Your task to perform on an android device: Open Reddit.com Image 0: 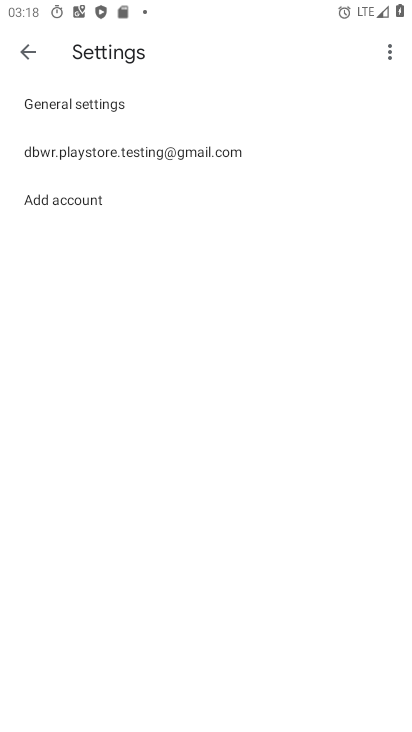
Step 0: press home button
Your task to perform on an android device: Open Reddit.com Image 1: 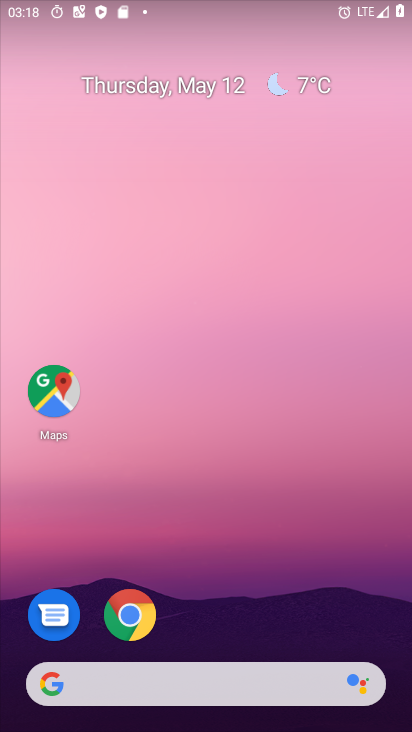
Step 1: click (126, 615)
Your task to perform on an android device: Open Reddit.com Image 2: 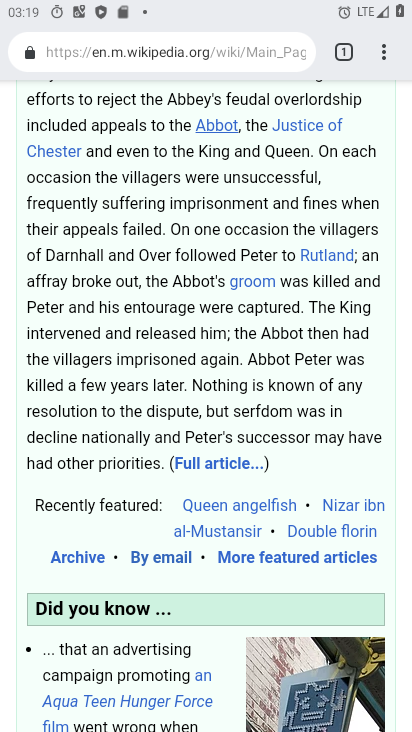
Step 2: click (189, 49)
Your task to perform on an android device: Open Reddit.com Image 3: 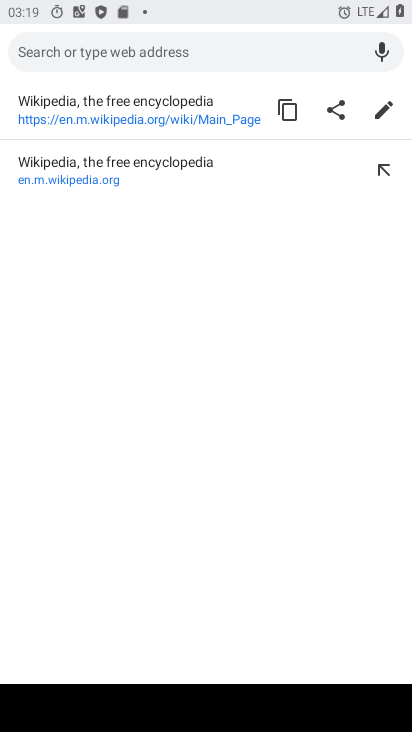
Step 3: type "reddit.com"
Your task to perform on an android device: Open Reddit.com Image 4: 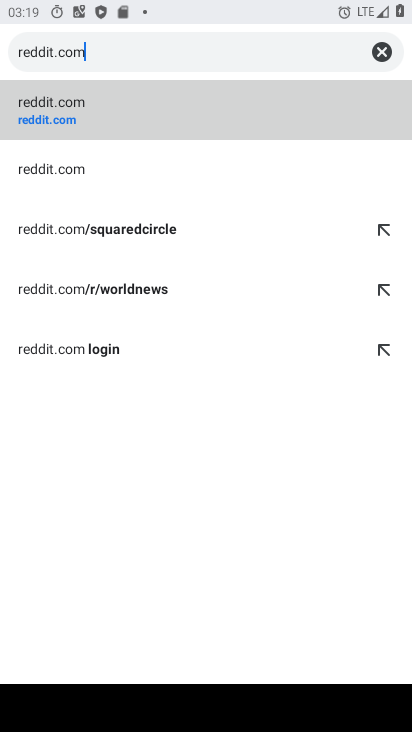
Step 4: click (83, 126)
Your task to perform on an android device: Open Reddit.com Image 5: 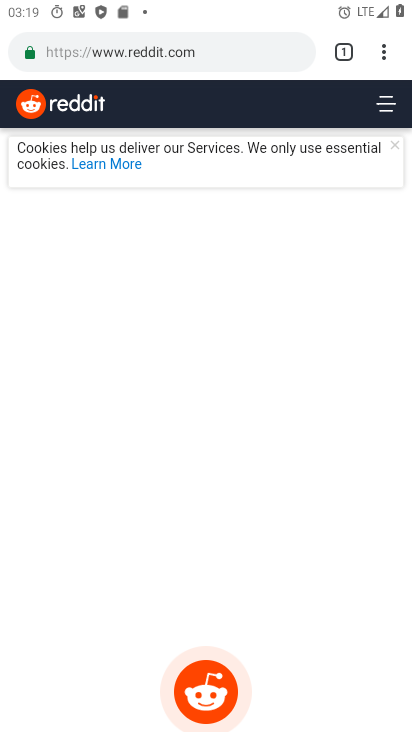
Step 5: task complete